Your task to perform on an android device: see tabs open on other devices in the chrome app Image 0: 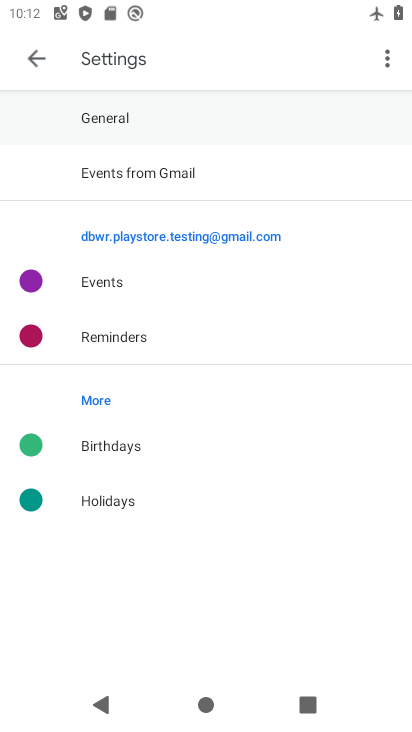
Step 0: press back button
Your task to perform on an android device: see tabs open on other devices in the chrome app Image 1: 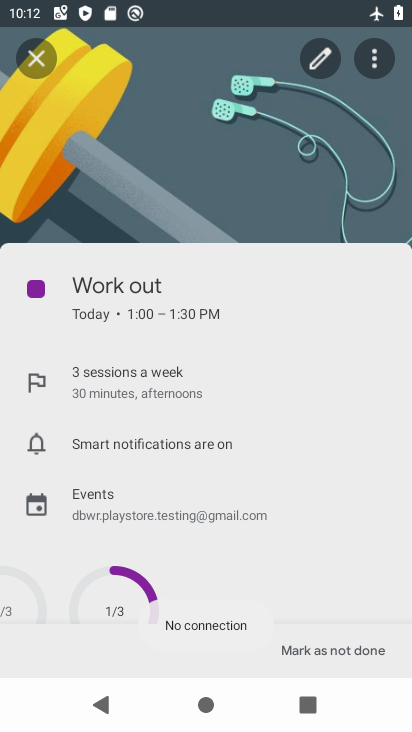
Step 1: press back button
Your task to perform on an android device: see tabs open on other devices in the chrome app Image 2: 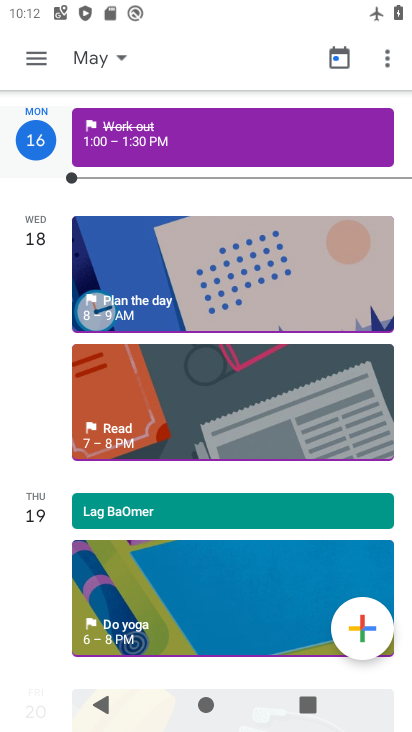
Step 2: press back button
Your task to perform on an android device: see tabs open on other devices in the chrome app Image 3: 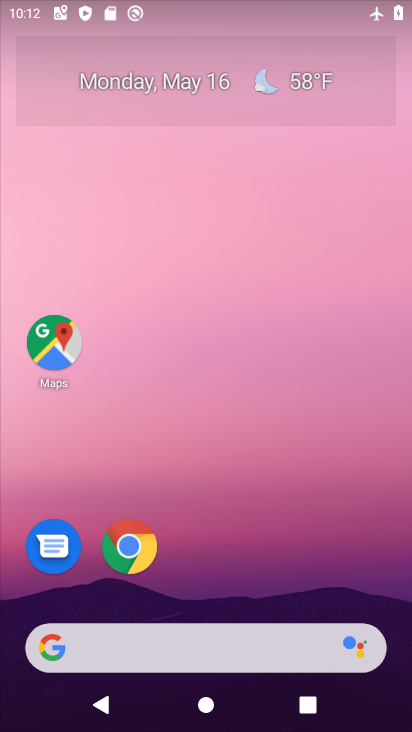
Step 3: click (128, 543)
Your task to perform on an android device: see tabs open on other devices in the chrome app Image 4: 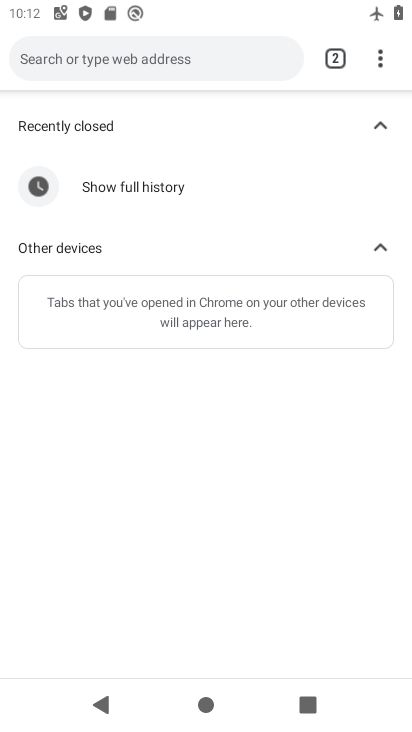
Step 4: task complete